Your task to perform on an android device: Open settings Image 0: 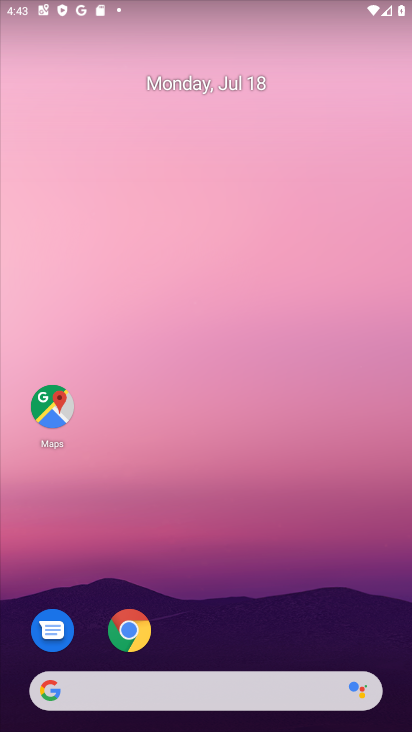
Step 0: click (242, 63)
Your task to perform on an android device: Open settings Image 1: 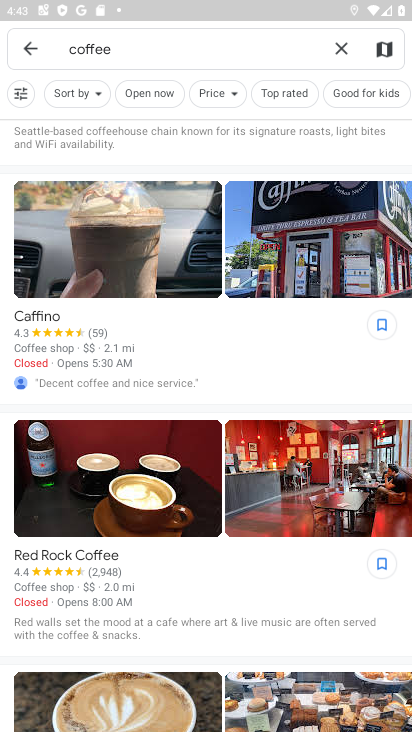
Step 1: press home button
Your task to perform on an android device: Open settings Image 2: 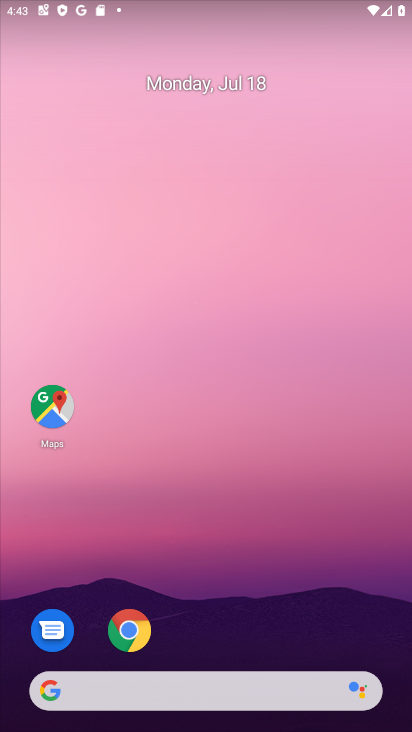
Step 2: drag from (232, 637) to (275, 166)
Your task to perform on an android device: Open settings Image 3: 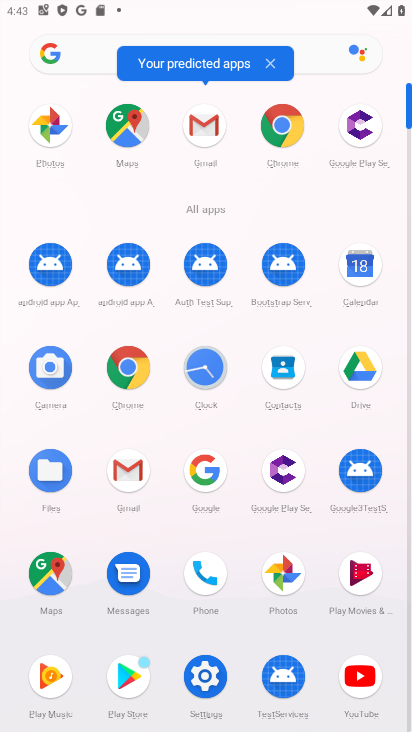
Step 3: click (208, 665)
Your task to perform on an android device: Open settings Image 4: 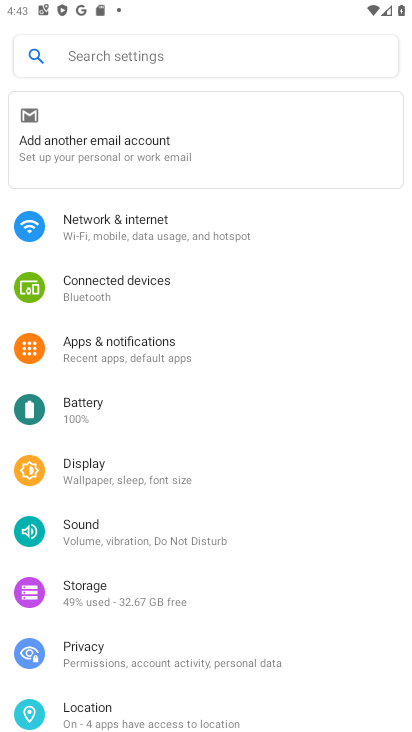
Step 4: task complete